Your task to perform on an android device: turn on improve location accuracy Image 0: 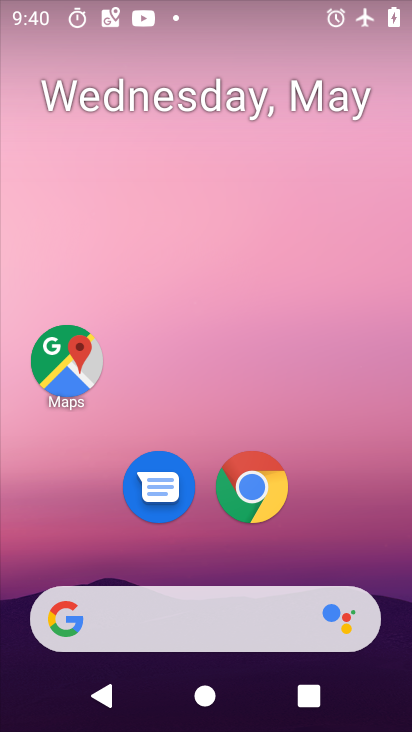
Step 0: drag from (184, 563) to (193, 223)
Your task to perform on an android device: turn on improve location accuracy Image 1: 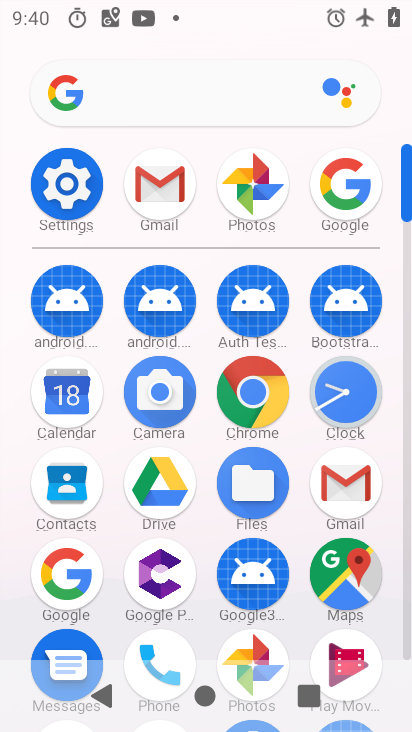
Step 1: click (89, 202)
Your task to perform on an android device: turn on improve location accuracy Image 2: 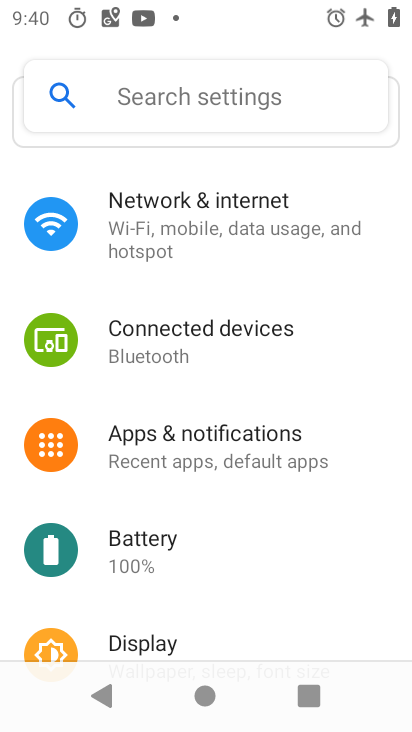
Step 2: drag from (224, 563) to (225, 340)
Your task to perform on an android device: turn on improve location accuracy Image 3: 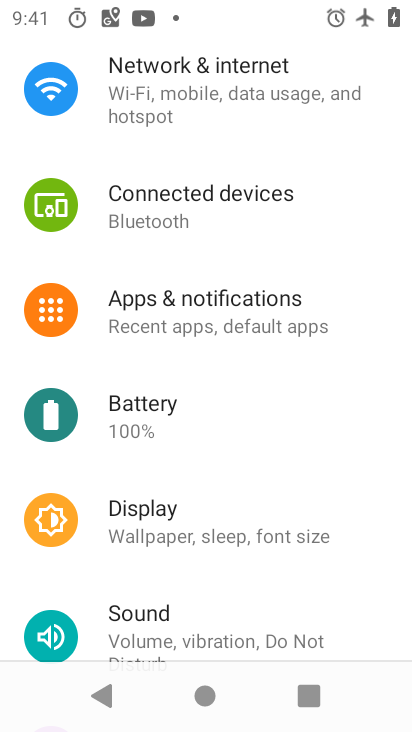
Step 3: drag from (256, 584) to (311, 241)
Your task to perform on an android device: turn on improve location accuracy Image 4: 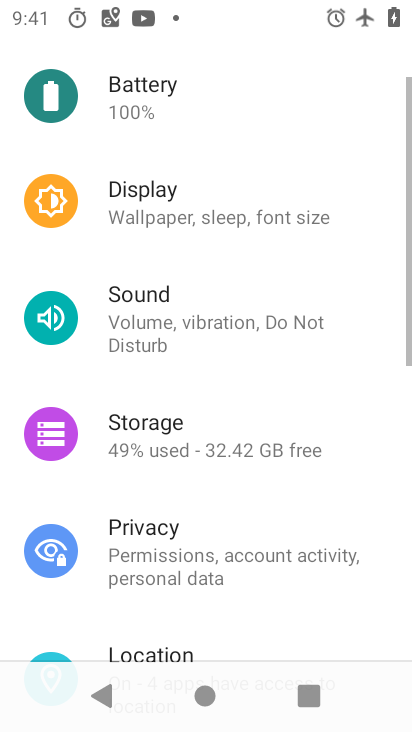
Step 4: drag from (250, 478) to (255, 223)
Your task to perform on an android device: turn on improve location accuracy Image 5: 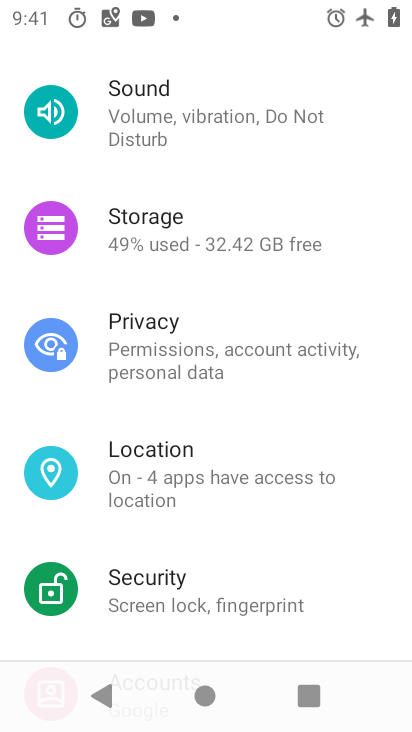
Step 5: click (187, 460)
Your task to perform on an android device: turn on improve location accuracy Image 6: 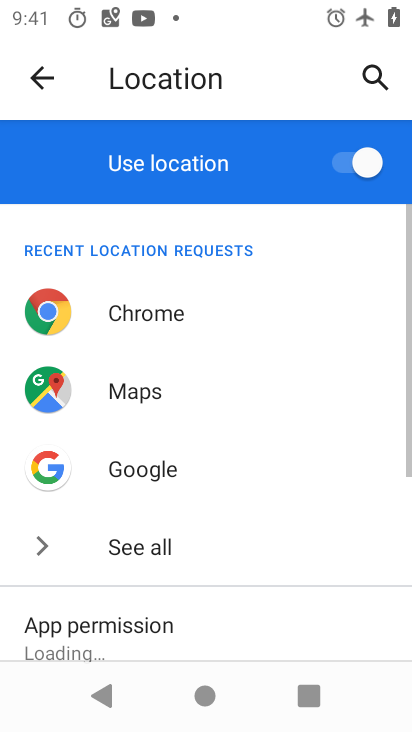
Step 6: drag from (213, 559) to (225, 321)
Your task to perform on an android device: turn on improve location accuracy Image 7: 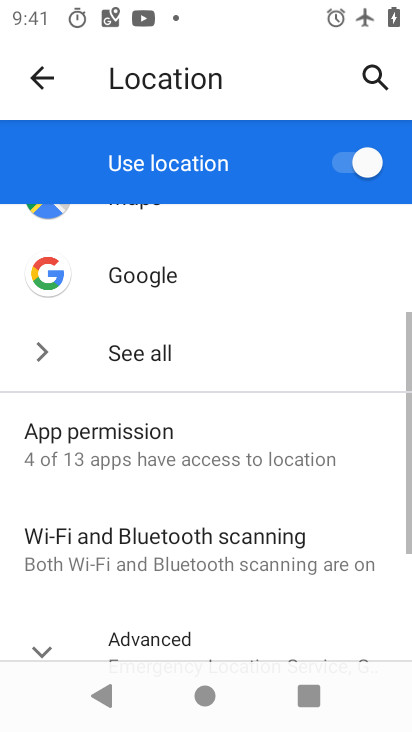
Step 7: drag from (205, 606) to (235, 412)
Your task to perform on an android device: turn on improve location accuracy Image 8: 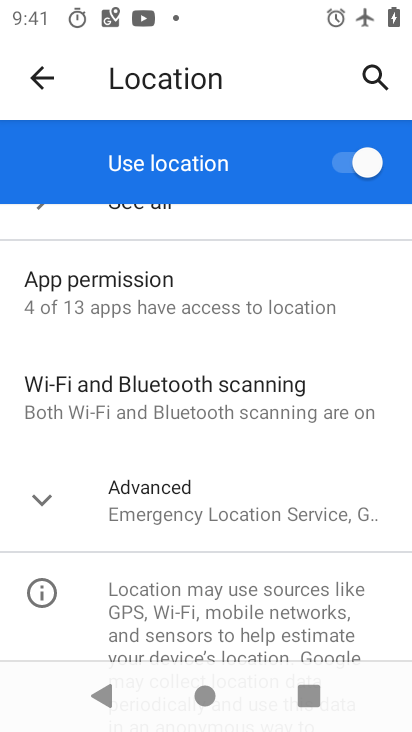
Step 8: click (194, 494)
Your task to perform on an android device: turn on improve location accuracy Image 9: 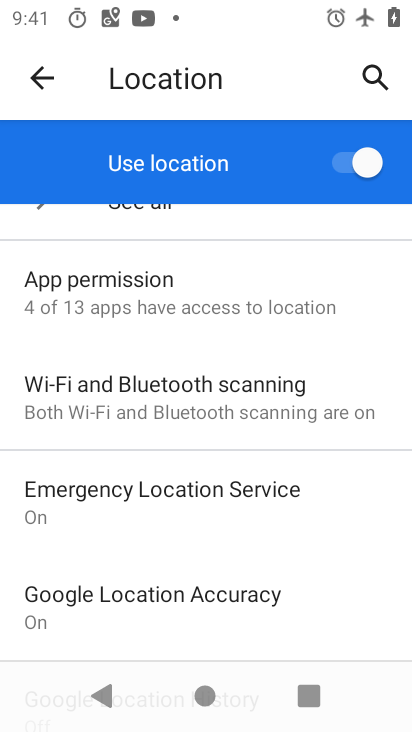
Step 9: drag from (201, 534) to (240, 329)
Your task to perform on an android device: turn on improve location accuracy Image 10: 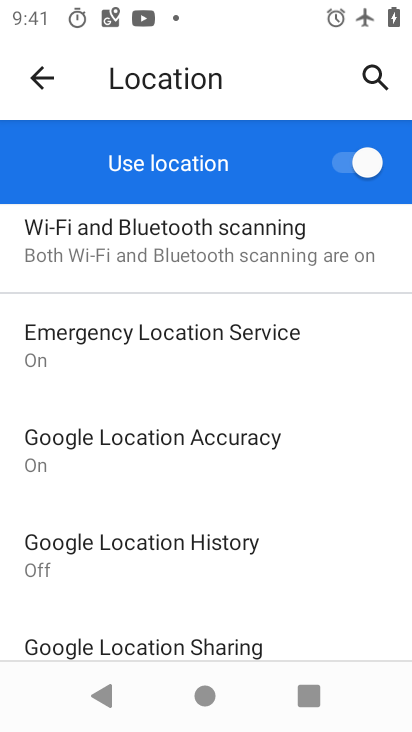
Step 10: click (240, 435)
Your task to perform on an android device: turn on improve location accuracy Image 11: 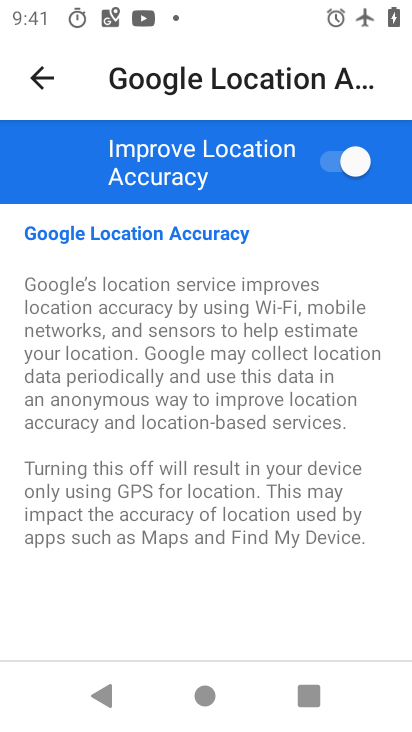
Step 11: task complete